Your task to perform on an android device: toggle show notifications on the lock screen Image 0: 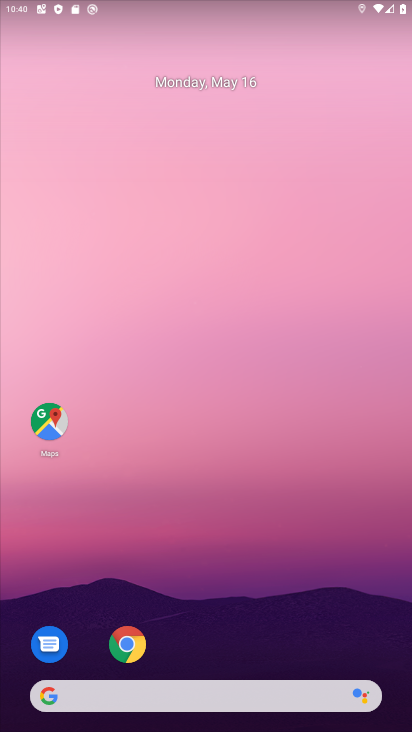
Step 0: drag from (186, 726) to (253, 184)
Your task to perform on an android device: toggle show notifications on the lock screen Image 1: 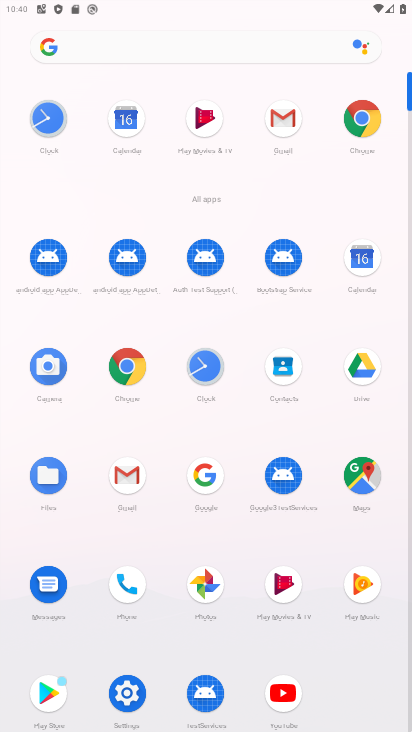
Step 1: click (132, 690)
Your task to perform on an android device: toggle show notifications on the lock screen Image 2: 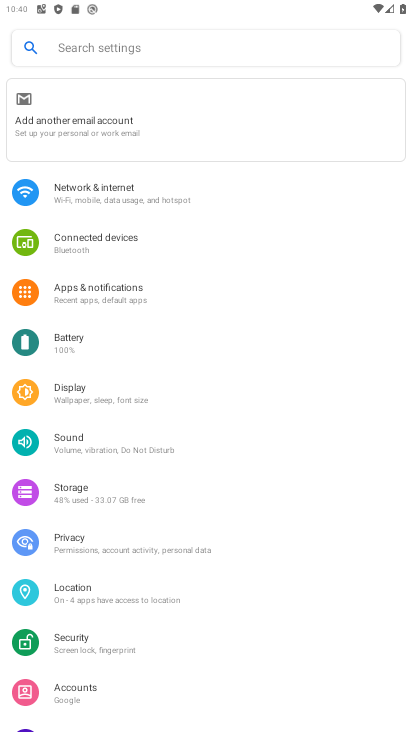
Step 2: click (83, 298)
Your task to perform on an android device: toggle show notifications on the lock screen Image 3: 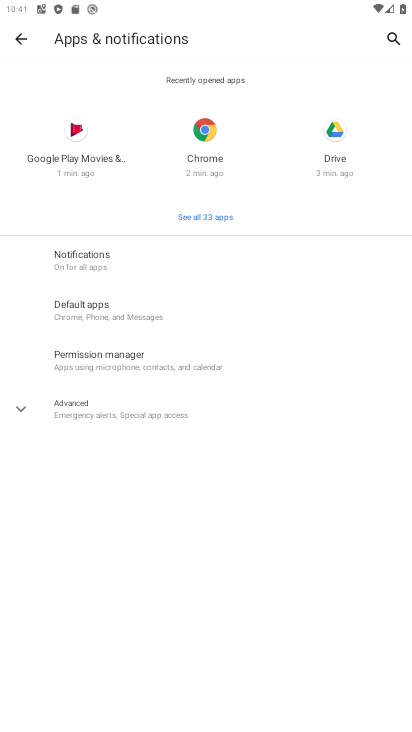
Step 3: click (80, 264)
Your task to perform on an android device: toggle show notifications on the lock screen Image 4: 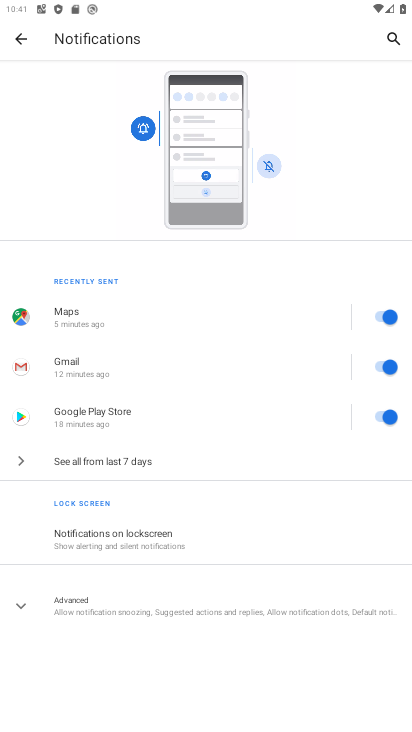
Step 4: click (101, 536)
Your task to perform on an android device: toggle show notifications on the lock screen Image 5: 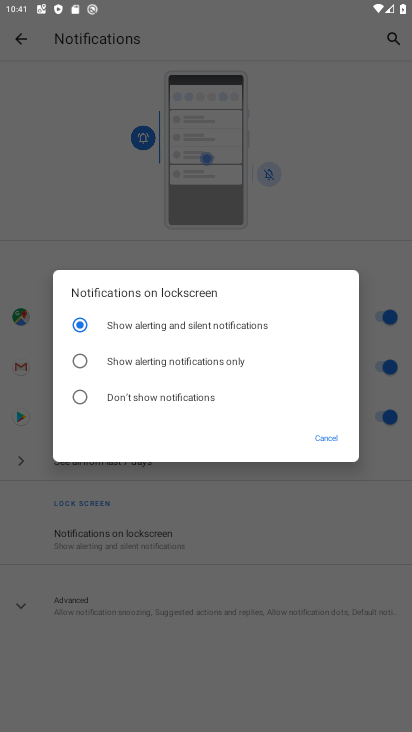
Step 5: click (78, 360)
Your task to perform on an android device: toggle show notifications on the lock screen Image 6: 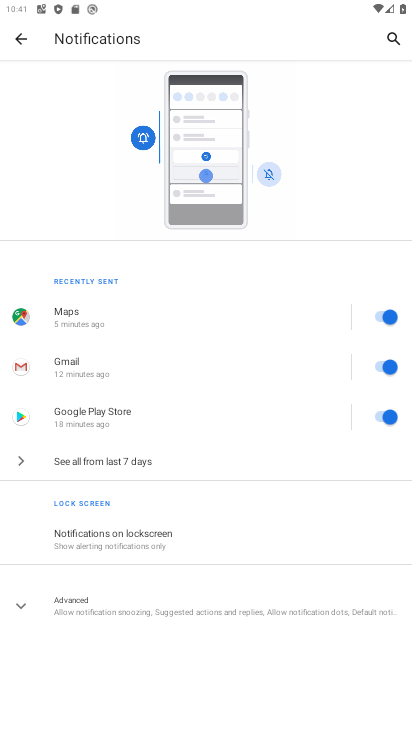
Step 6: task complete